Your task to perform on an android device: check the backup settings in the google photos Image 0: 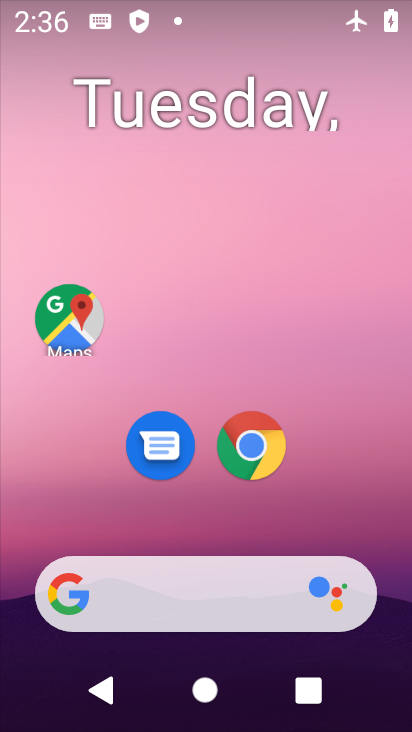
Step 0: drag from (359, 528) to (245, 102)
Your task to perform on an android device: check the backup settings in the google photos Image 1: 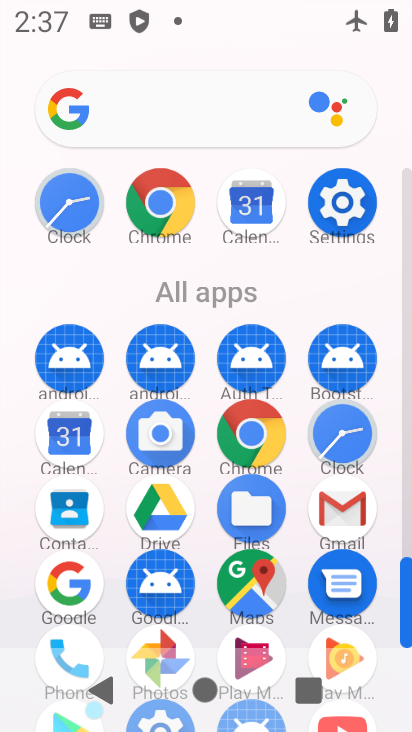
Step 1: click (161, 636)
Your task to perform on an android device: check the backup settings in the google photos Image 2: 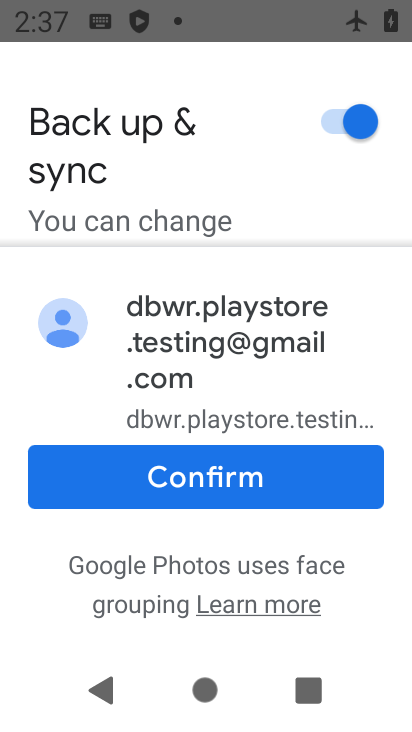
Step 2: click (224, 475)
Your task to perform on an android device: check the backup settings in the google photos Image 3: 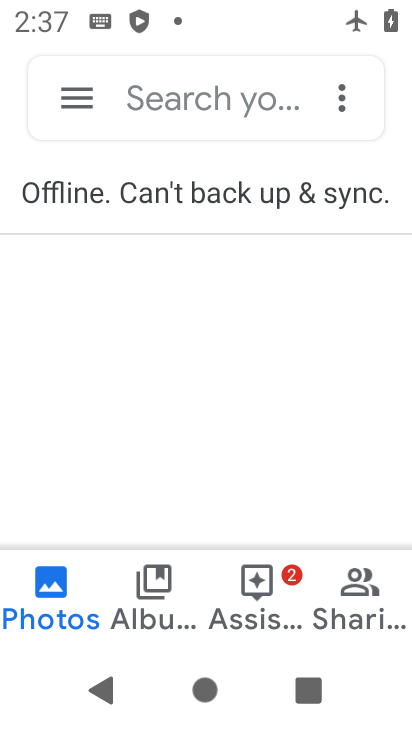
Step 3: click (78, 78)
Your task to perform on an android device: check the backup settings in the google photos Image 4: 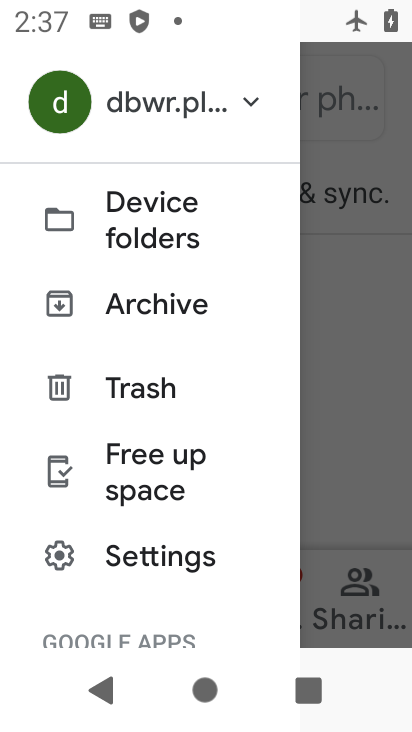
Step 4: click (120, 565)
Your task to perform on an android device: check the backup settings in the google photos Image 5: 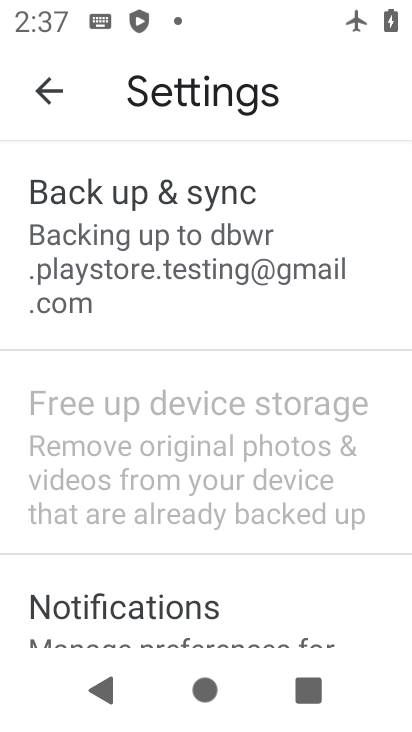
Step 5: click (120, 280)
Your task to perform on an android device: check the backup settings in the google photos Image 6: 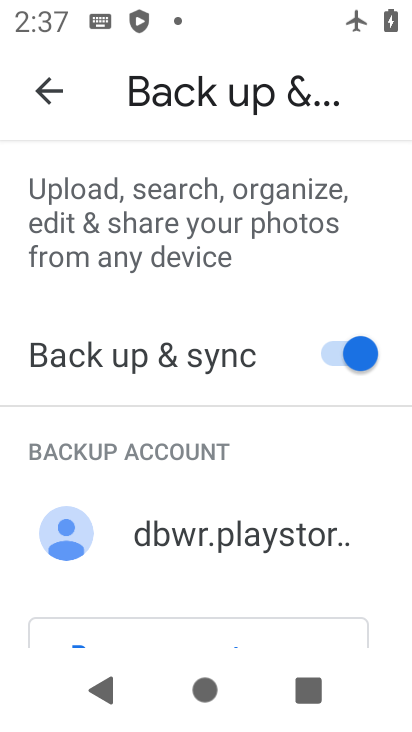
Step 6: task complete